Your task to perform on an android device: make emails show in primary in the gmail app Image 0: 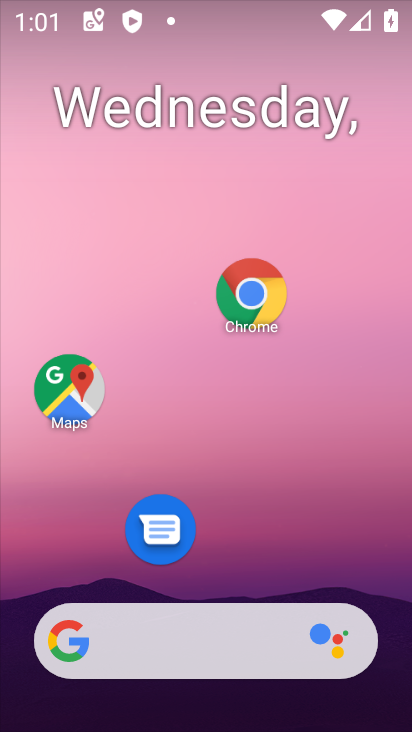
Step 0: drag from (310, 538) to (332, 166)
Your task to perform on an android device: make emails show in primary in the gmail app Image 1: 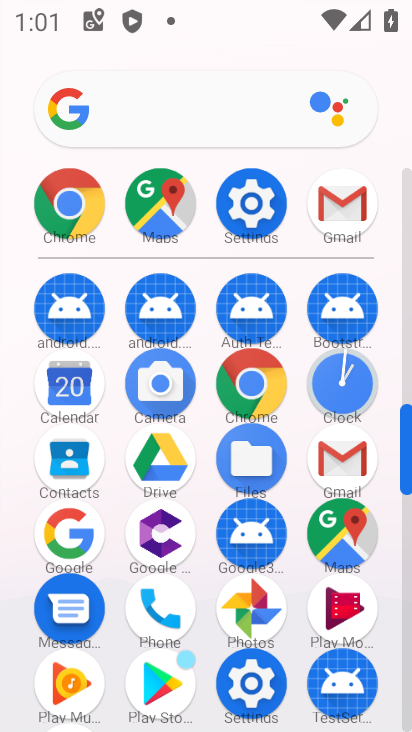
Step 1: click (351, 460)
Your task to perform on an android device: make emails show in primary in the gmail app Image 2: 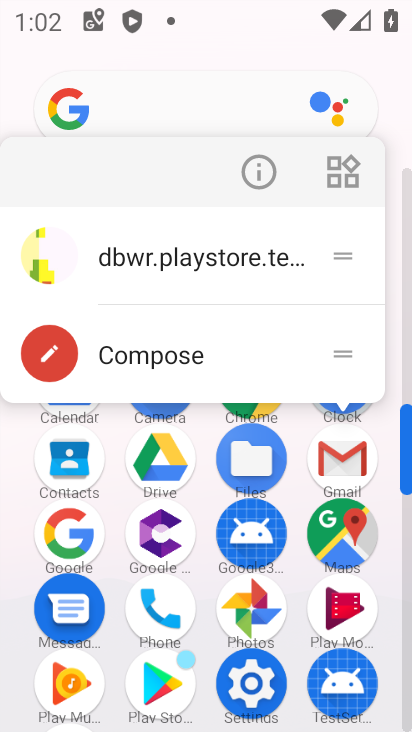
Step 2: click (330, 467)
Your task to perform on an android device: make emails show in primary in the gmail app Image 3: 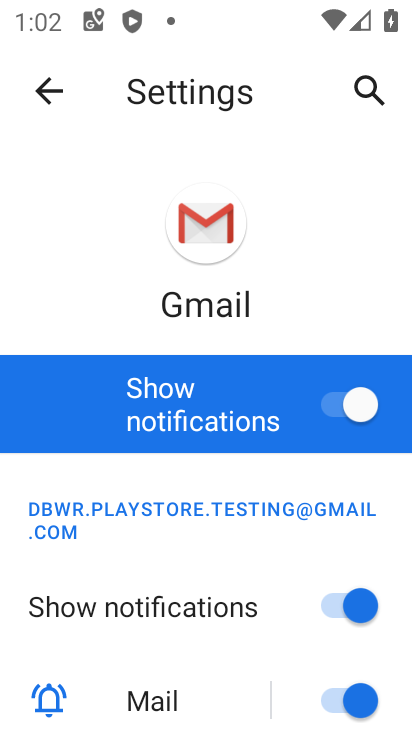
Step 3: click (49, 97)
Your task to perform on an android device: make emails show in primary in the gmail app Image 4: 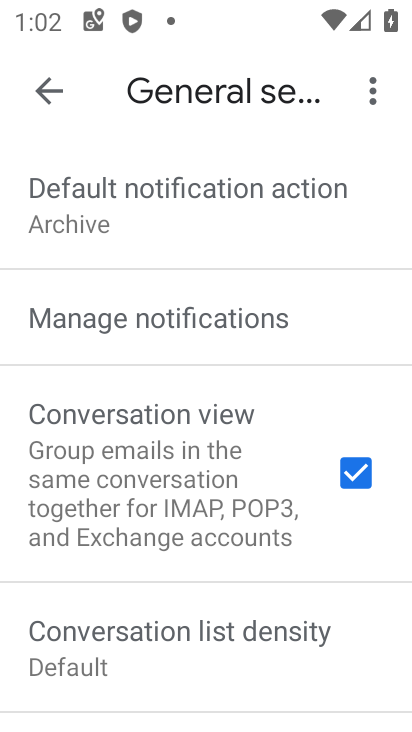
Step 4: click (50, 106)
Your task to perform on an android device: make emails show in primary in the gmail app Image 5: 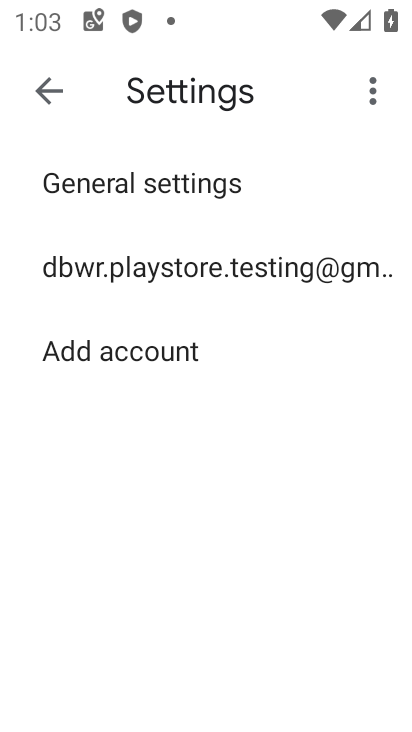
Step 5: task complete